Your task to perform on an android device: check out phone information Image 0: 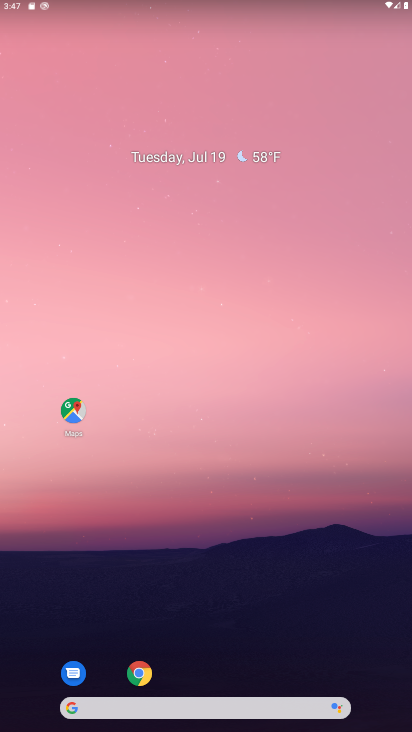
Step 0: drag from (299, 699) to (290, 136)
Your task to perform on an android device: check out phone information Image 1: 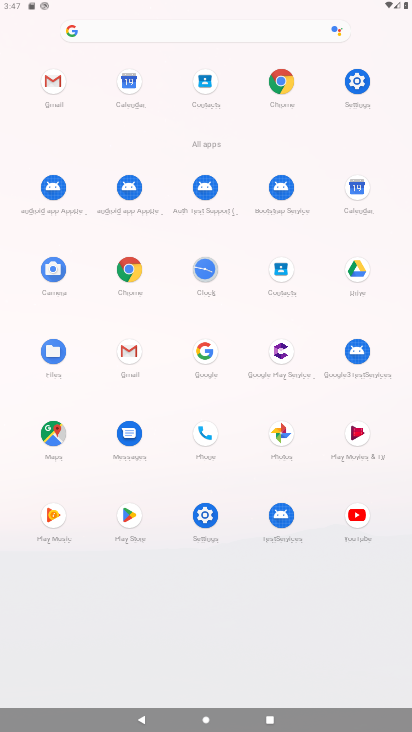
Step 1: click (367, 81)
Your task to perform on an android device: check out phone information Image 2: 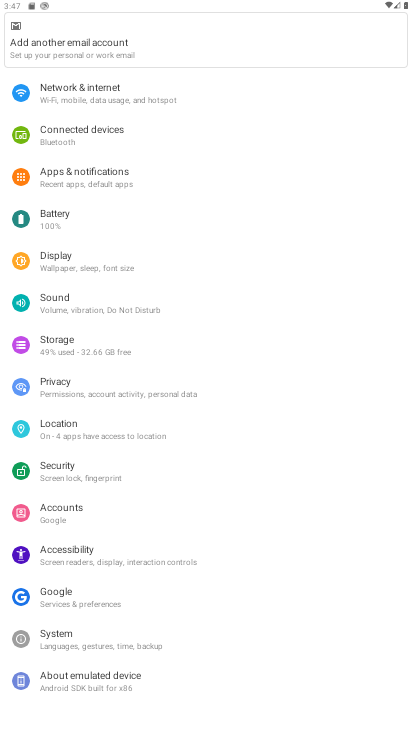
Step 2: click (140, 674)
Your task to perform on an android device: check out phone information Image 3: 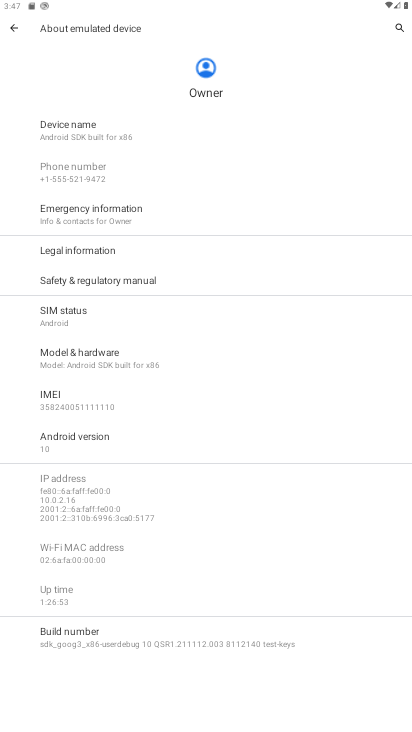
Step 3: task complete